Your task to perform on an android device: add a label to a message in the gmail app Image 0: 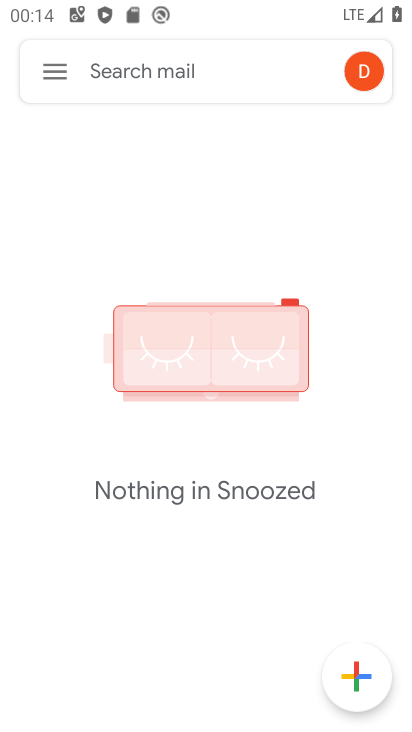
Step 0: press home button
Your task to perform on an android device: add a label to a message in the gmail app Image 1: 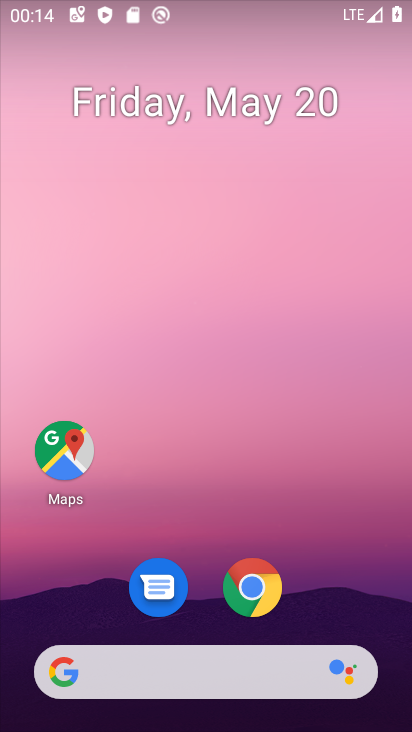
Step 1: drag from (275, 643) to (220, 189)
Your task to perform on an android device: add a label to a message in the gmail app Image 2: 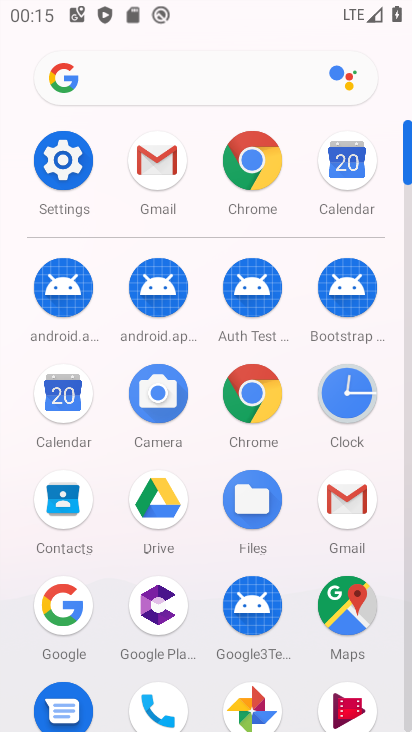
Step 2: click (326, 488)
Your task to perform on an android device: add a label to a message in the gmail app Image 3: 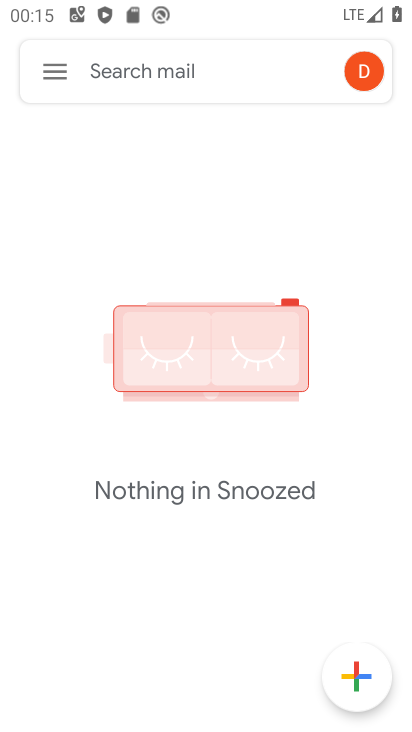
Step 3: click (39, 83)
Your task to perform on an android device: add a label to a message in the gmail app Image 4: 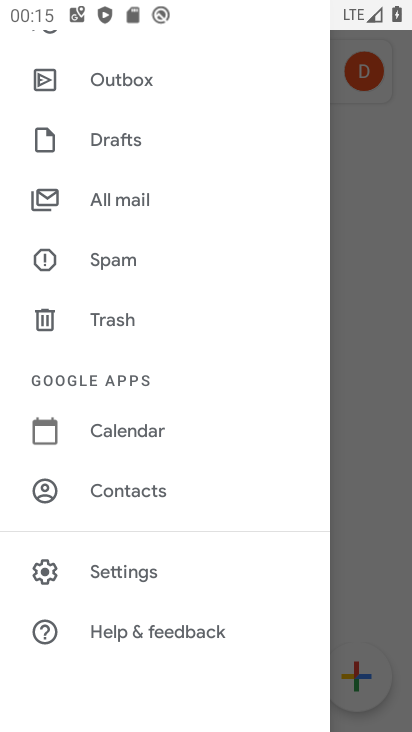
Step 4: click (117, 569)
Your task to perform on an android device: add a label to a message in the gmail app Image 5: 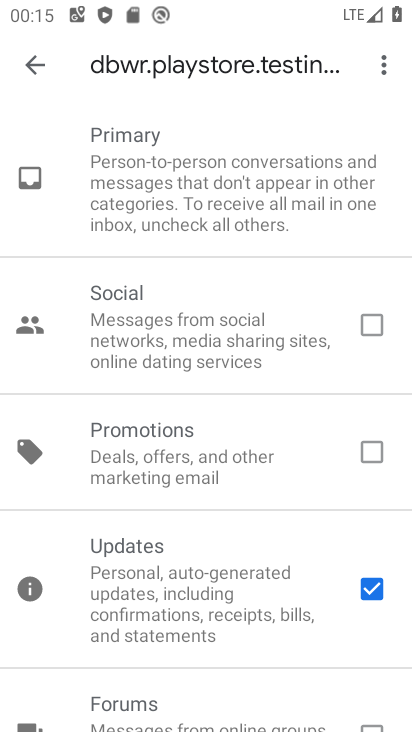
Step 5: click (37, 78)
Your task to perform on an android device: add a label to a message in the gmail app Image 6: 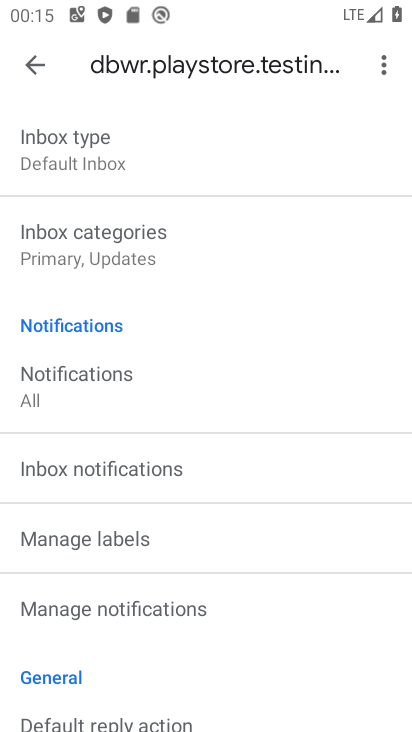
Step 6: click (133, 533)
Your task to perform on an android device: add a label to a message in the gmail app Image 7: 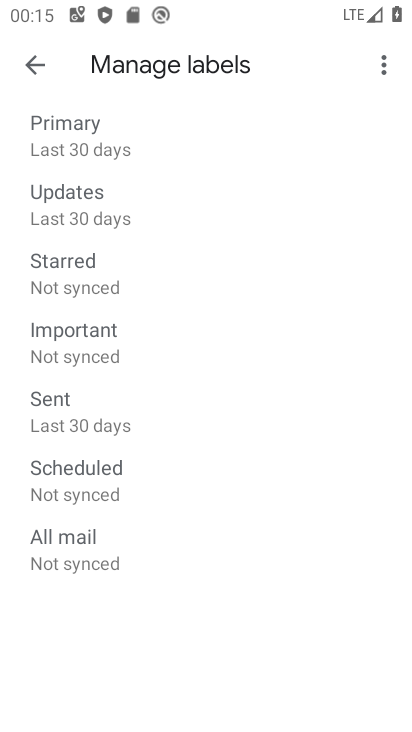
Step 7: click (123, 405)
Your task to perform on an android device: add a label to a message in the gmail app Image 8: 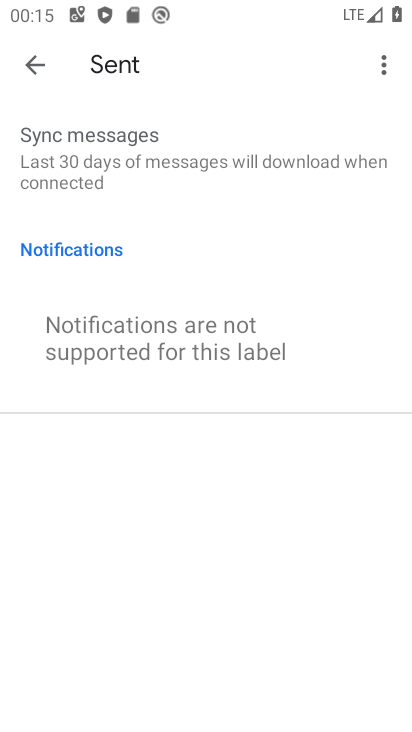
Step 8: task complete